Your task to perform on an android device: Open Google Chrome and open the bookmarks view Image 0: 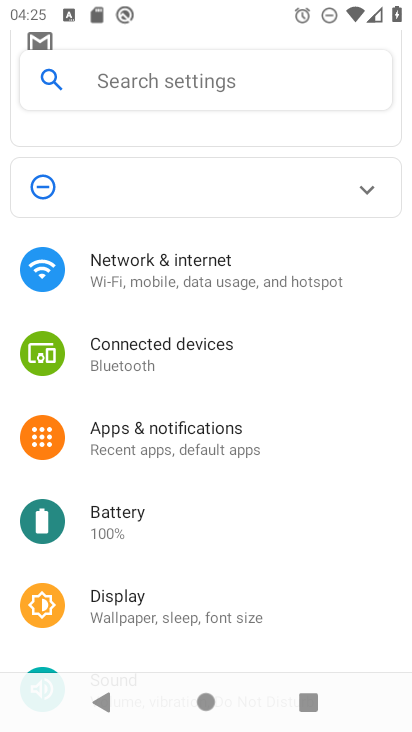
Step 0: press home button
Your task to perform on an android device: Open Google Chrome and open the bookmarks view Image 1: 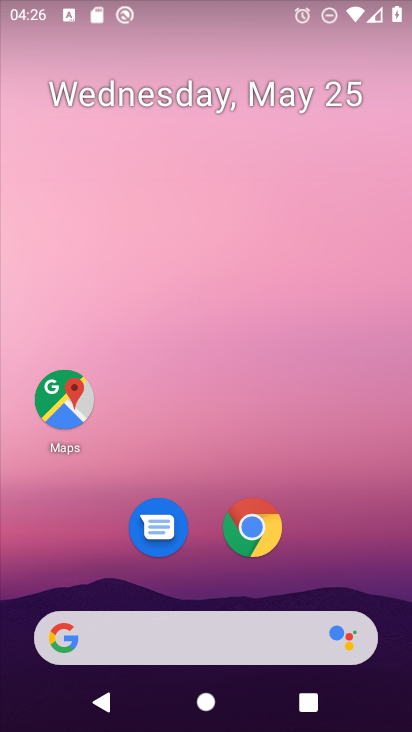
Step 1: drag from (234, 585) to (178, 145)
Your task to perform on an android device: Open Google Chrome and open the bookmarks view Image 2: 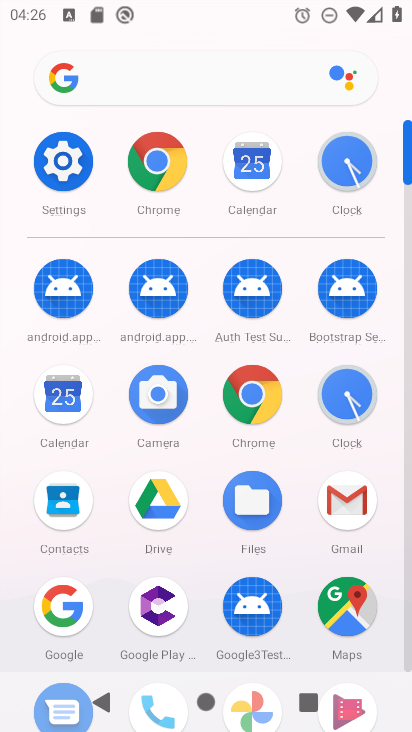
Step 2: click (153, 167)
Your task to perform on an android device: Open Google Chrome and open the bookmarks view Image 3: 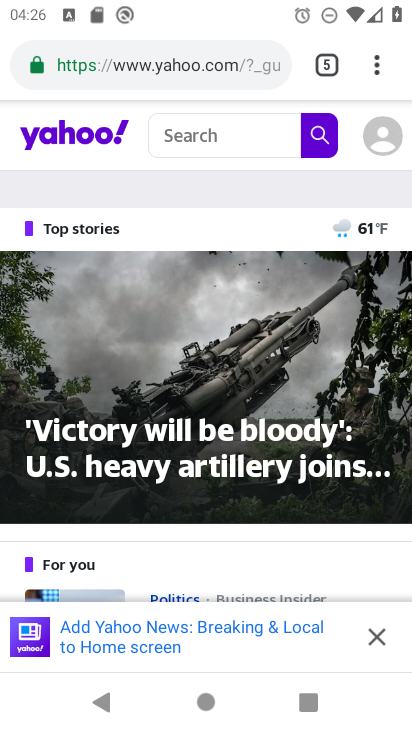
Step 3: click (381, 71)
Your task to perform on an android device: Open Google Chrome and open the bookmarks view Image 4: 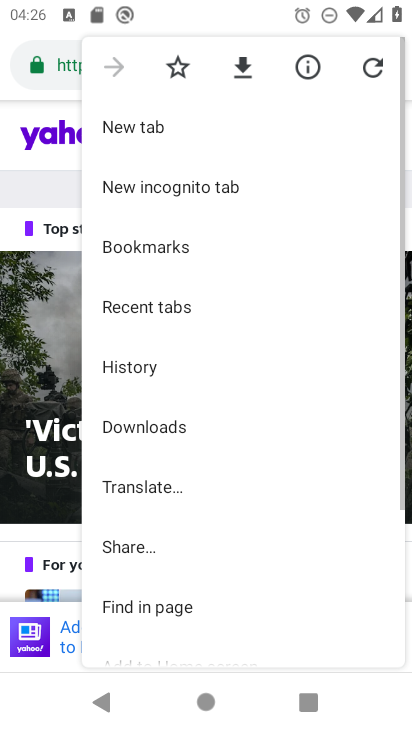
Step 4: click (159, 246)
Your task to perform on an android device: Open Google Chrome and open the bookmarks view Image 5: 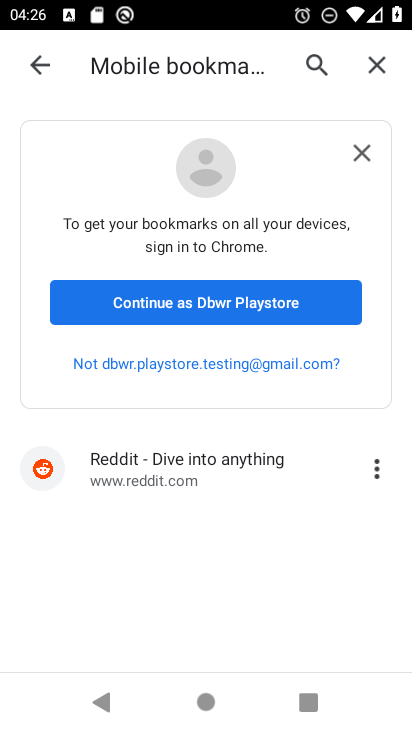
Step 5: task complete